Your task to perform on an android device: open app "Calculator" (install if not already installed) Image 0: 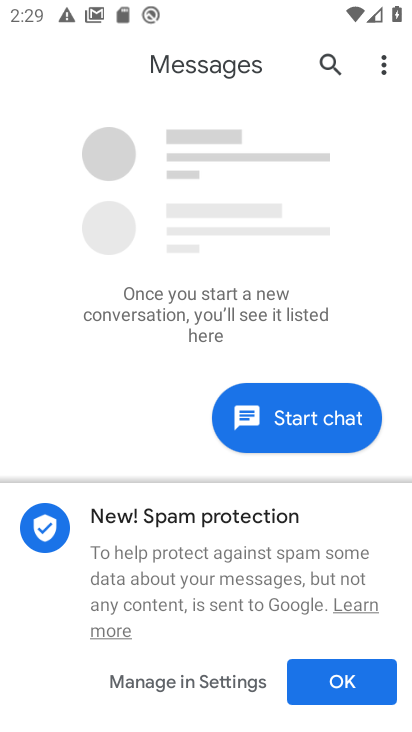
Step 0: press back button
Your task to perform on an android device: open app "Calculator" (install if not already installed) Image 1: 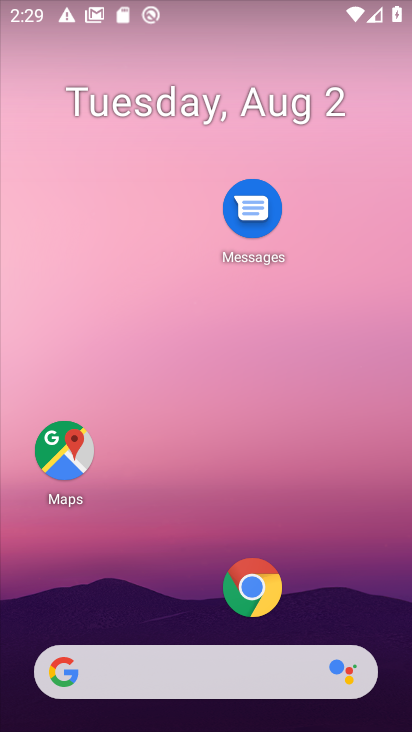
Step 1: drag from (173, 593) to (197, 181)
Your task to perform on an android device: open app "Calculator" (install if not already installed) Image 2: 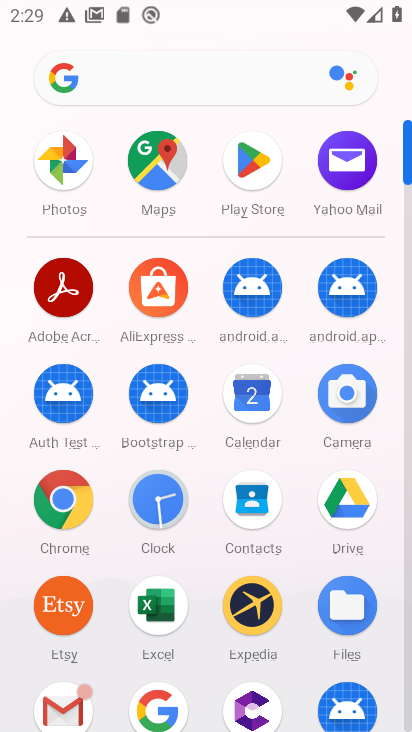
Step 2: click (239, 182)
Your task to perform on an android device: open app "Calculator" (install if not already installed) Image 3: 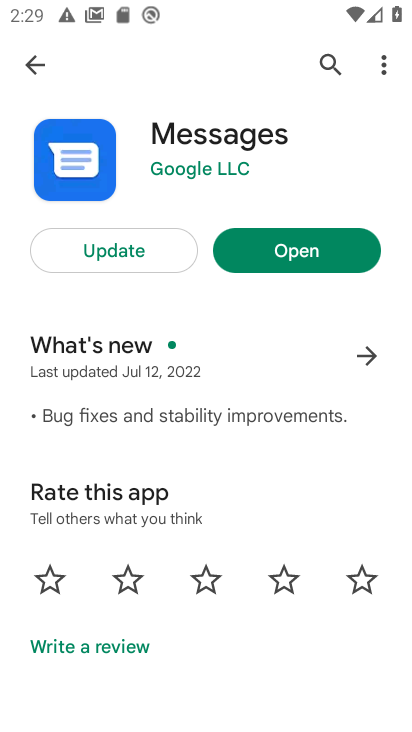
Step 3: click (333, 66)
Your task to perform on an android device: open app "Calculator" (install if not already installed) Image 4: 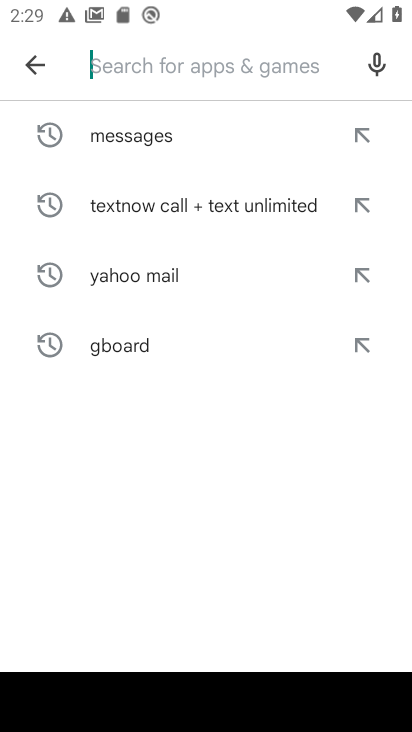
Step 4: type "Calculator"
Your task to perform on an android device: open app "Calculator" (install if not already installed) Image 5: 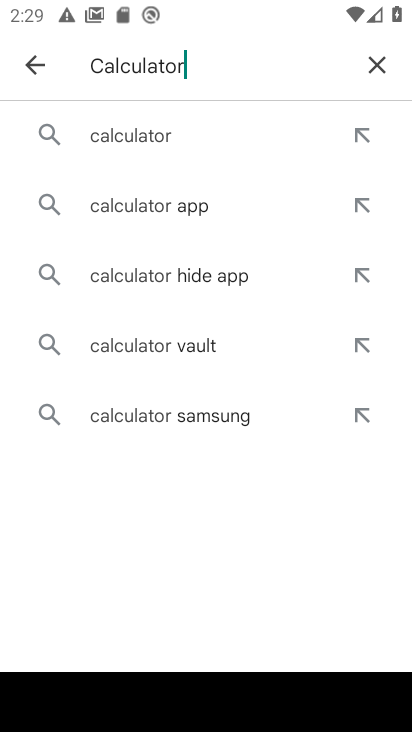
Step 5: type ""
Your task to perform on an android device: open app "Calculator" (install if not already installed) Image 6: 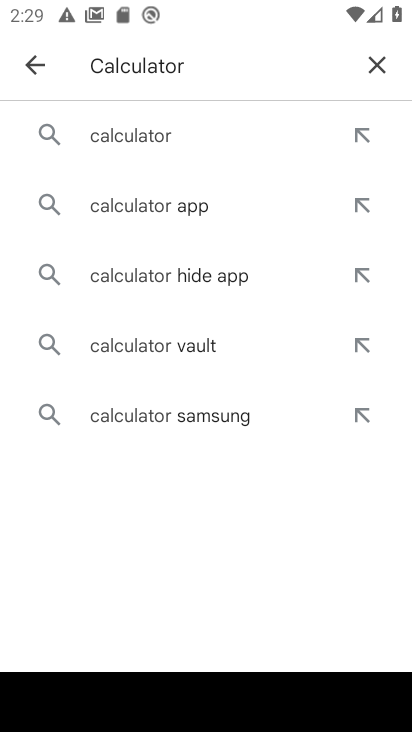
Step 6: click (174, 144)
Your task to perform on an android device: open app "Calculator" (install if not already installed) Image 7: 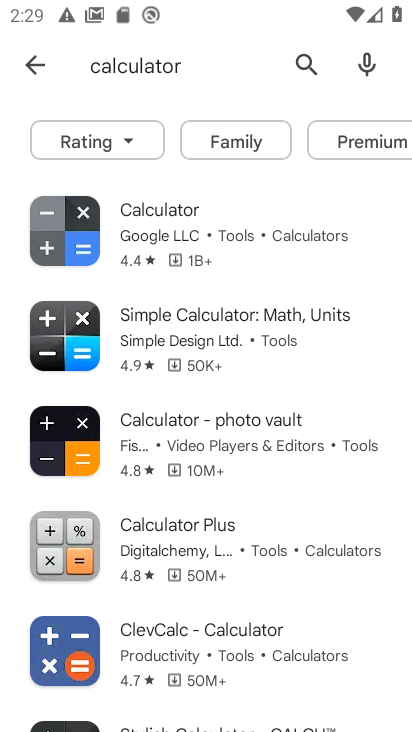
Step 7: click (244, 227)
Your task to perform on an android device: open app "Calculator" (install if not already installed) Image 8: 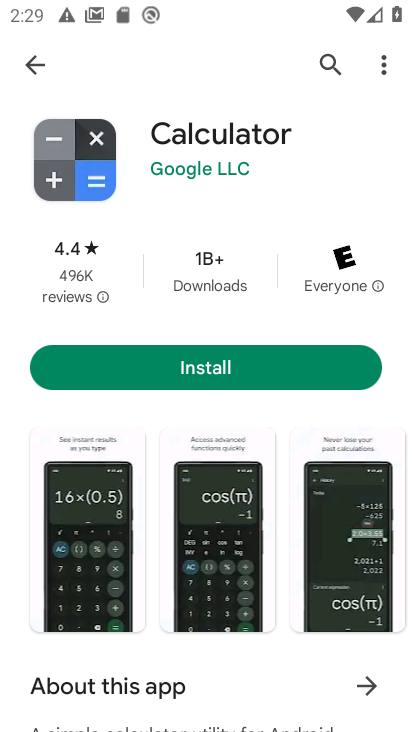
Step 8: click (265, 376)
Your task to perform on an android device: open app "Calculator" (install if not already installed) Image 9: 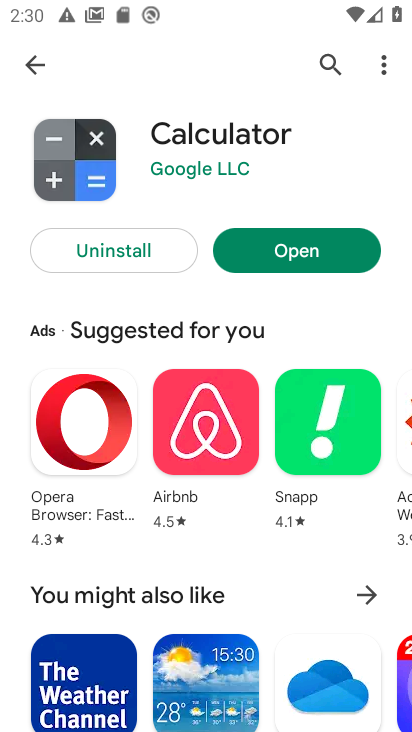
Step 9: click (311, 263)
Your task to perform on an android device: open app "Calculator" (install if not already installed) Image 10: 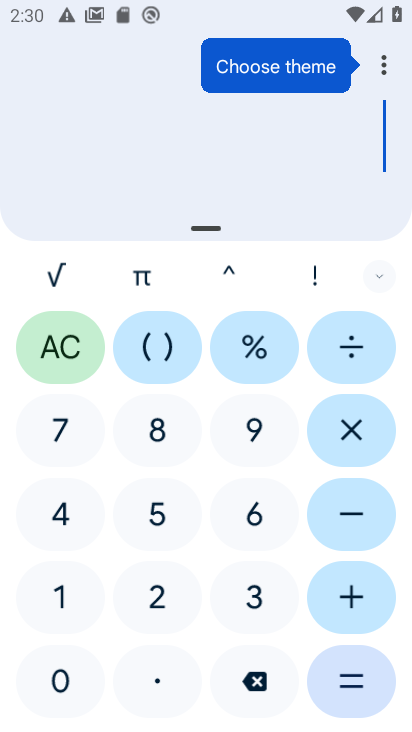
Step 10: task complete